Your task to perform on an android device: open chrome and create a bookmark for the current page Image 0: 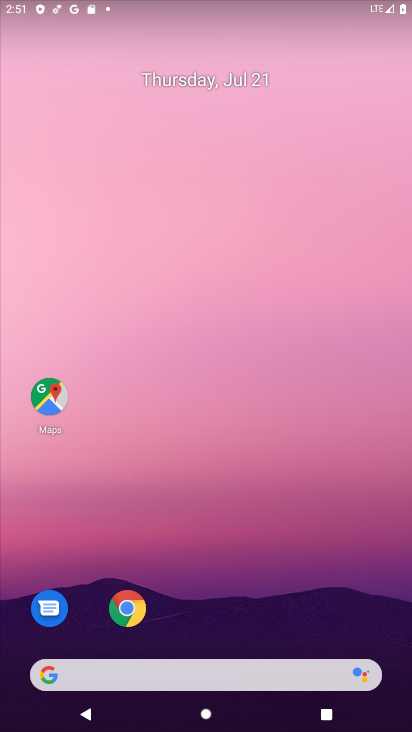
Step 0: click (134, 610)
Your task to perform on an android device: open chrome and create a bookmark for the current page Image 1: 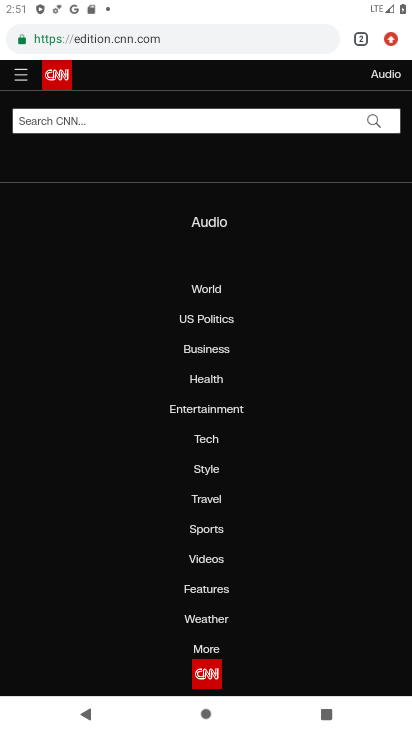
Step 1: task complete